Your task to perform on an android device: turn on showing notifications on the lock screen Image 0: 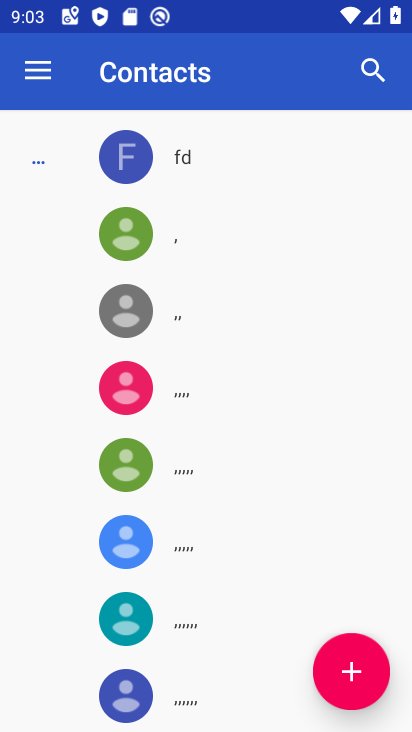
Step 0: press home button
Your task to perform on an android device: turn on showing notifications on the lock screen Image 1: 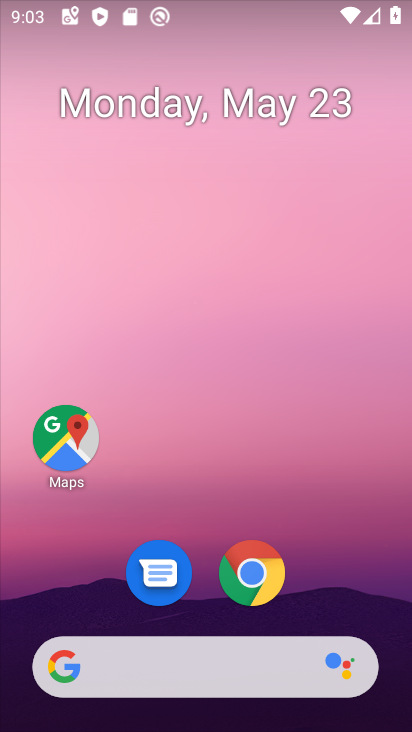
Step 1: drag from (362, 611) to (353, 203)
Your task to perform on an android device: turn on showing notifications on the lock screen Image 2: 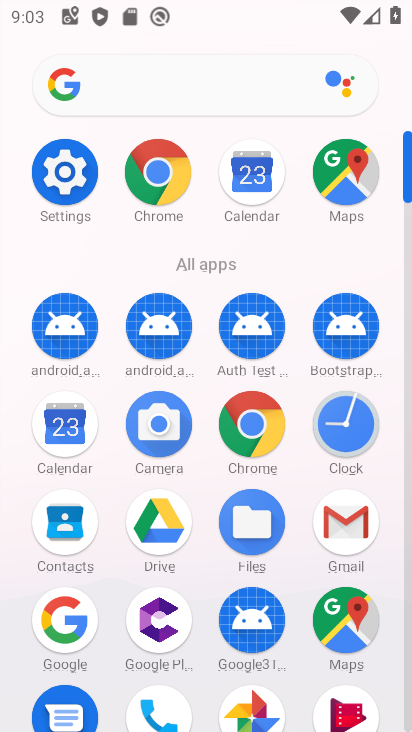
Step 2: drag from (401, 621) to (391, 334)
Your task to perform on an android device: turn on showing notifications on the lock screen Image 3: 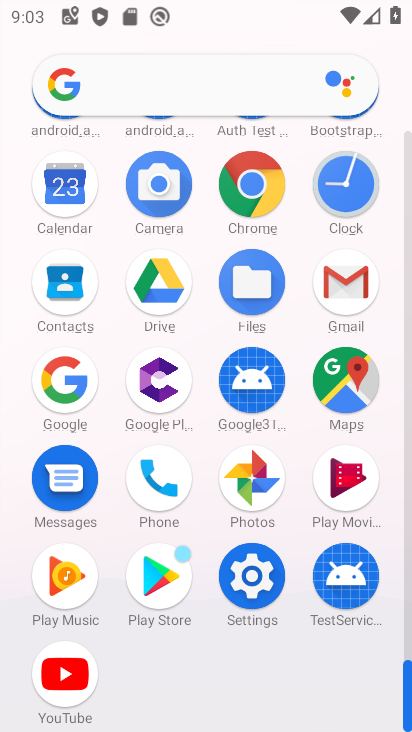
Step 3: click (257, 578)
Your task to perform on an android device: turn on showing notifications on the lock screen Image 4: 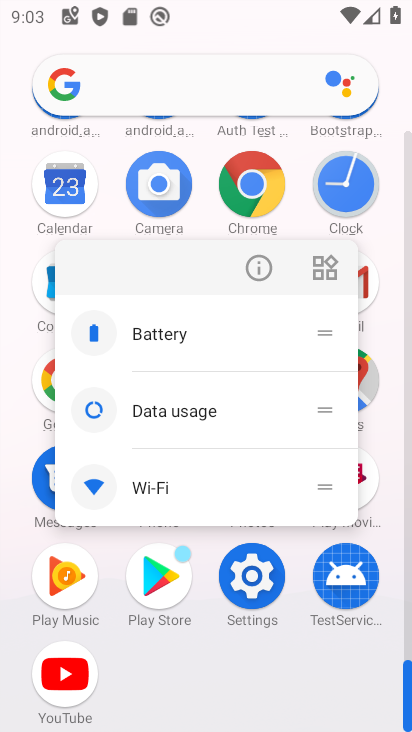
Step 4: click (257, 578)
Your task to perform on an android device: turn on showing notifications on the lock screen Image 5: 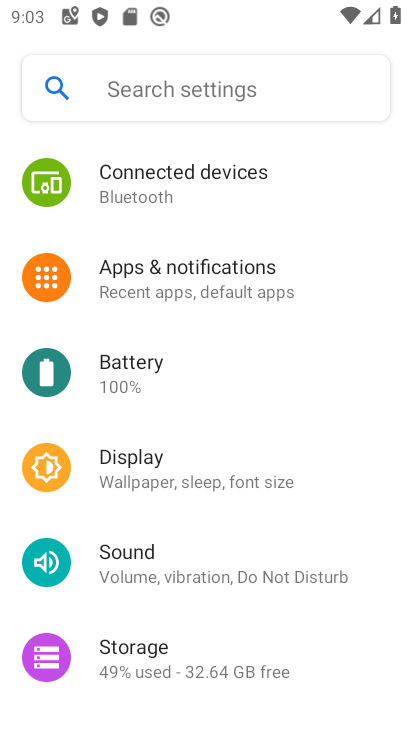
Step 5: drag from (359, 322) to (334, 421)
Your task to perform on an android device: turn on showing notifications on the lock screen Image 6: 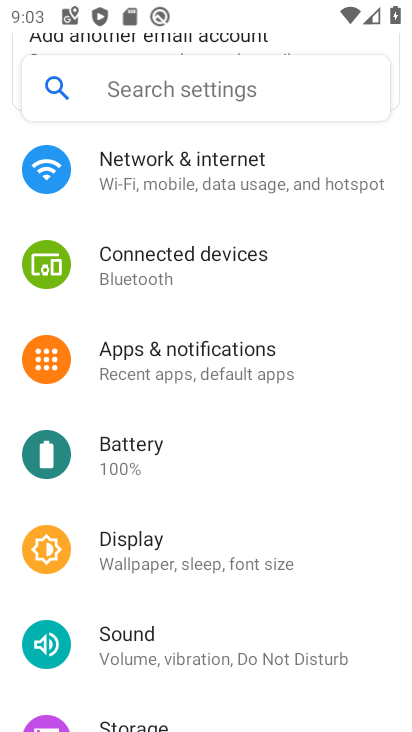
Step 6: drag from (360, 291) to (363, 393)
Your task to perform on an android device: turn on showing notifications on the lock screen Image 7: 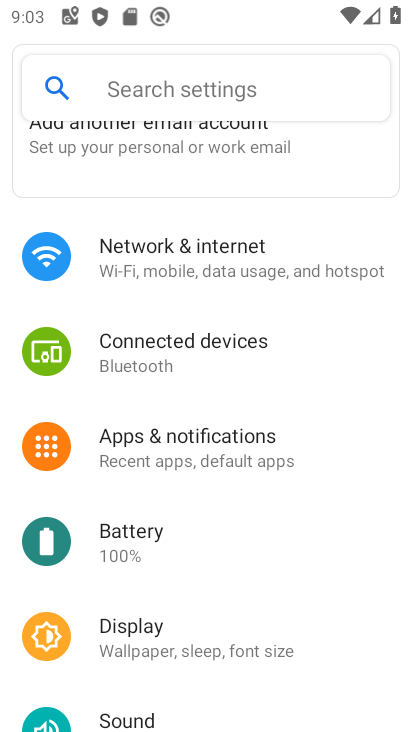
Step 7: click (285, 455)
Your task to perform on an android device: turn on showing notifications on the lock screen Image 8: 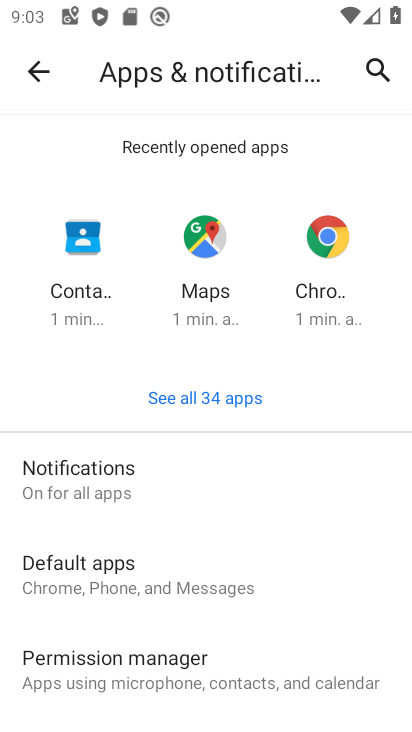
Step 8: click (151, 494)
Your task to perform on an android device: turn on showing notifications on the lock screen Image 9: 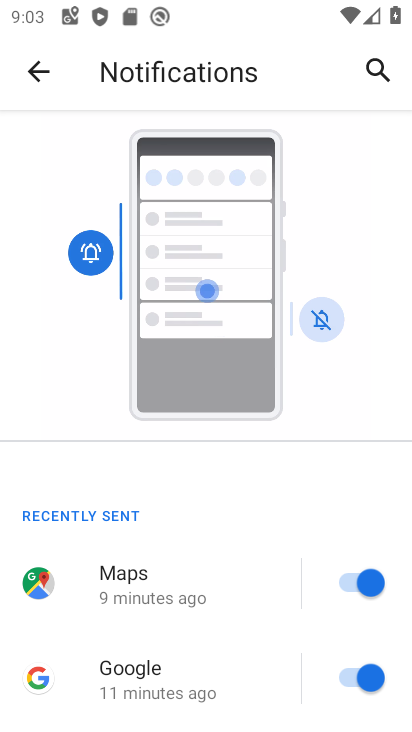
Step 9: drag from (308, 516) to (328, 418)
Your task to perform on an android device: turn on showing notifications on the lock screen Image 10: 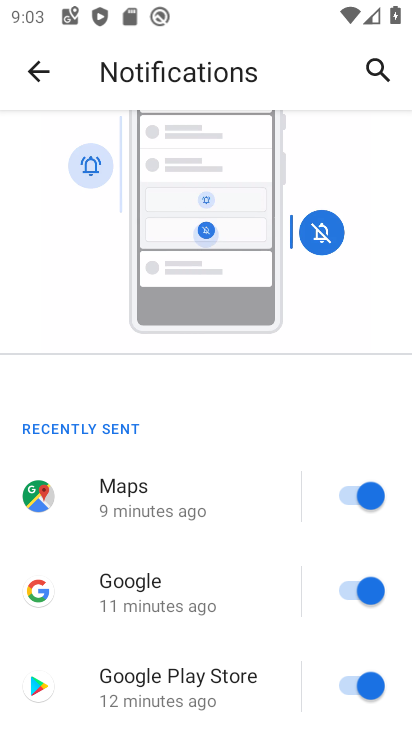
Step 10: drag from (269, 570) to (272, 470)
Your task to perform on an android device: turn on showing notifications on the lock screen Image 11: 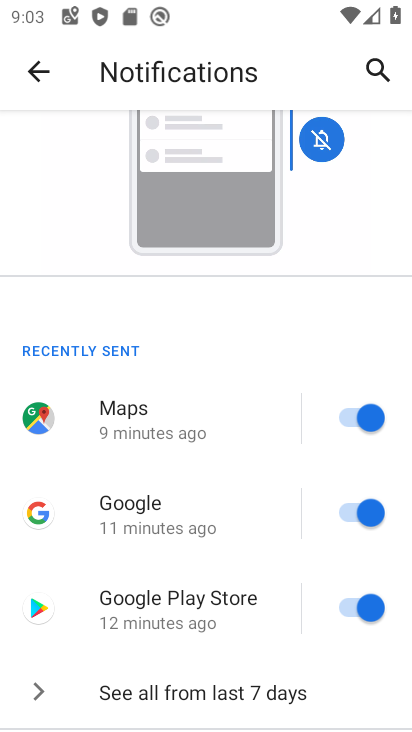
Step 11: drag from (264, 573) to (275, 463)
Your task to perform on an android device: turn on showing notifications on the lock screen Image 12: 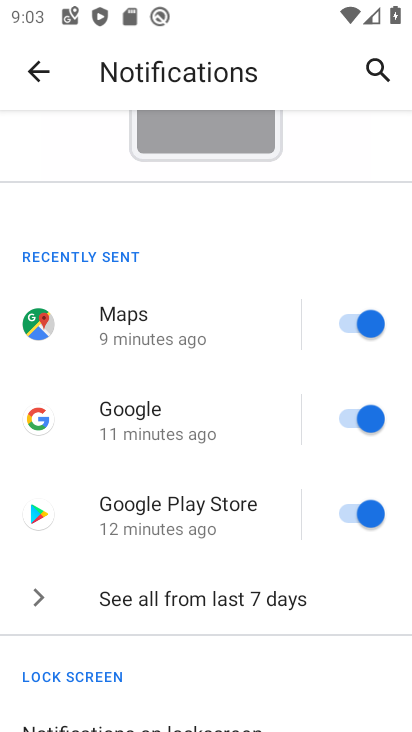
Step 12: drag from (256, 579) to (255, 482)
Your task to perform on an android device: turn on showing notifications on the lock screen Image 13: 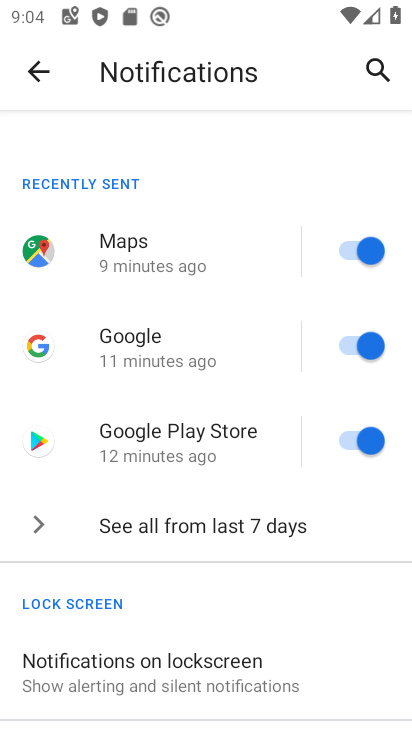
Step 13: drag from (247, 590) to (247, 468)
Your task to perform on an android device: turn on showing notifications on the lock screen Image 14: 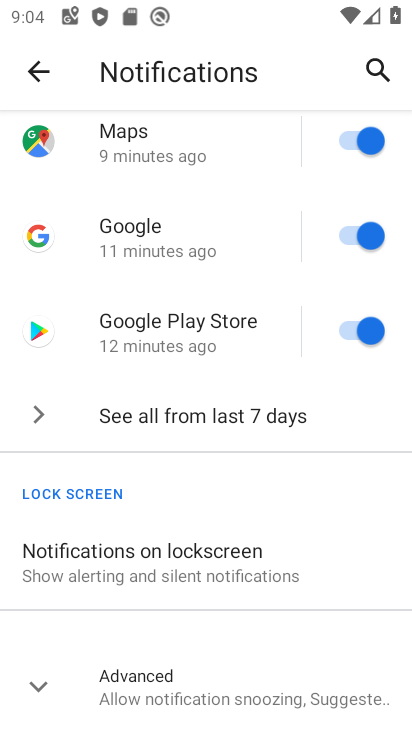
Step 14: drag from (222, 605) to (248, 483)
Your task to perform on an android device: turn on showing notifications on the lock screen Image 15: 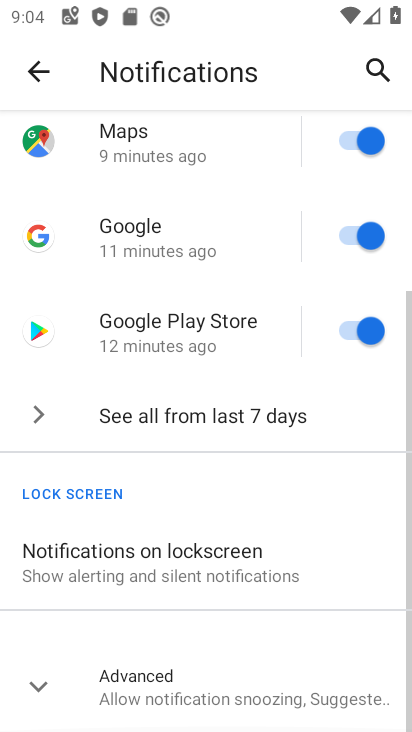
Step 15: click (220, 560)
Your task to perform on an android device: turn on showing notifications on the lock screen Image 16: 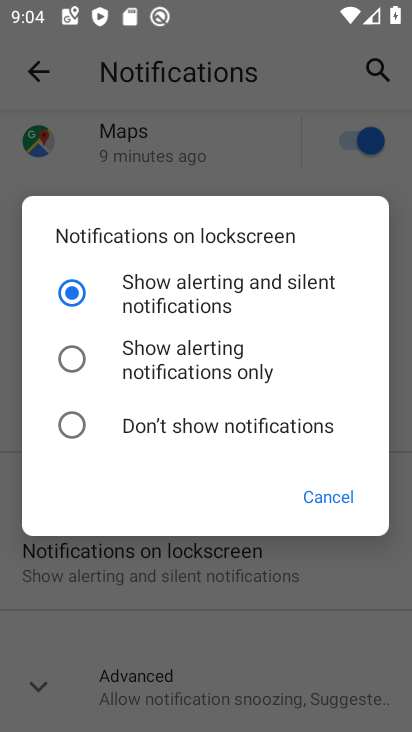
Step 16: task complete